Your task to perform on an android device: change timer sound Image 0: 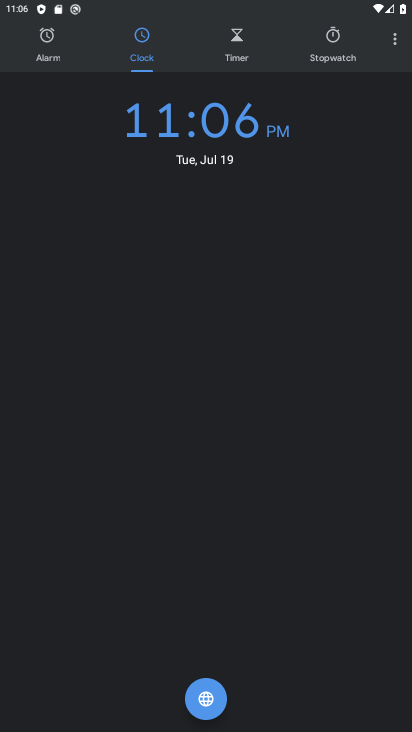
Step 0: press home button
Your task to perform on an android device: change timer sound Image 1: 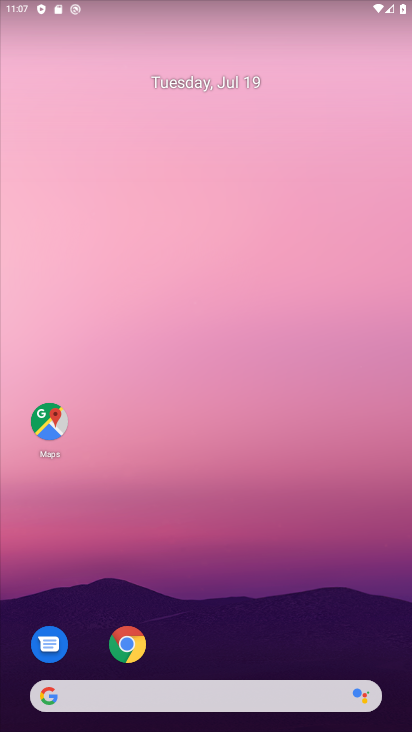
Step 1: drag from (19, 709) to (295, 74)
Your task to perform on an android device: change timer sound Image 2: 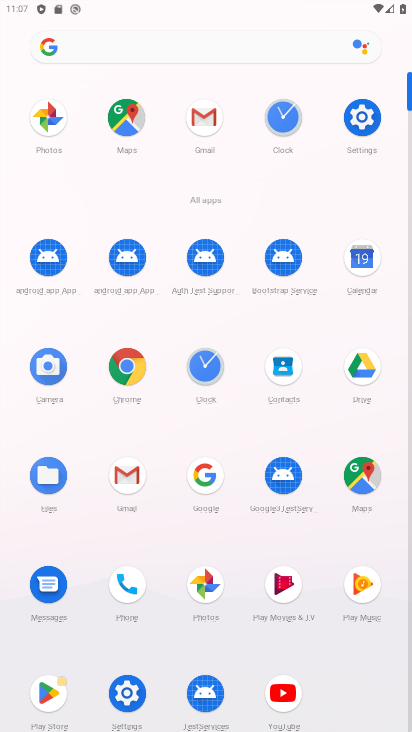
Step 2: click (190, 366)
Your task to perform on an android device: change timer sound Image 3: 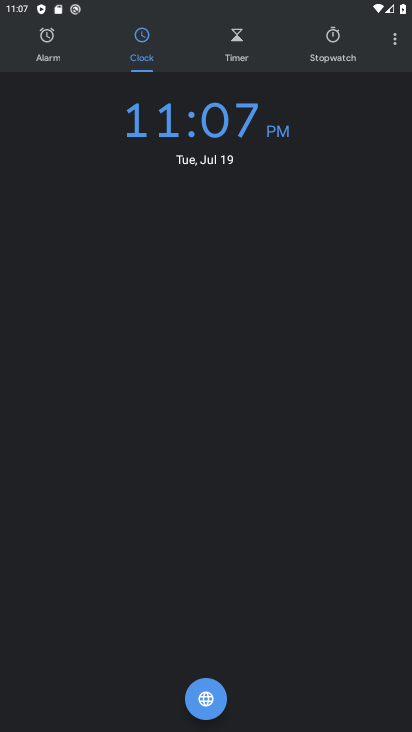
Step 3: click (229, 43)
Your task to perform on an android device: change timer sound Image 4: 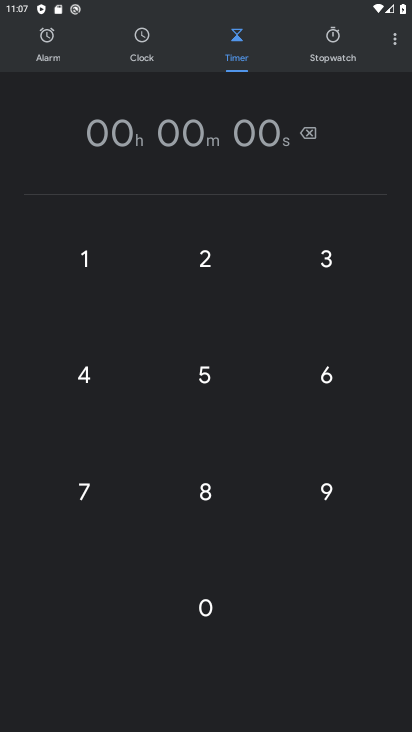
Step 4: click (402, 28)
Your task to perform on an android device: change timer sound Image 5: 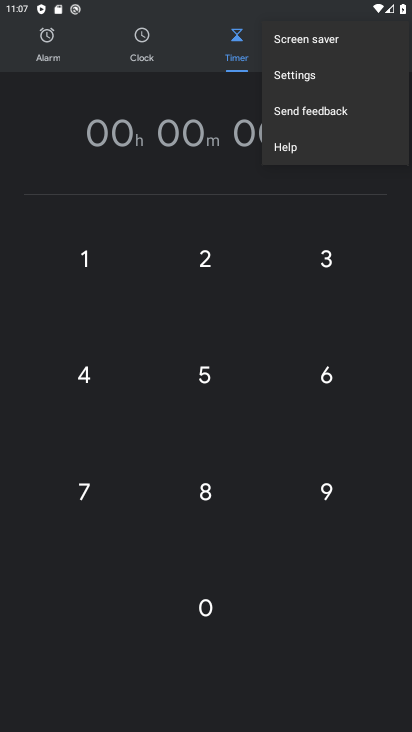
Step 5: click (291, 75)
Your task to perform on an android device: change timer sound Image 6: 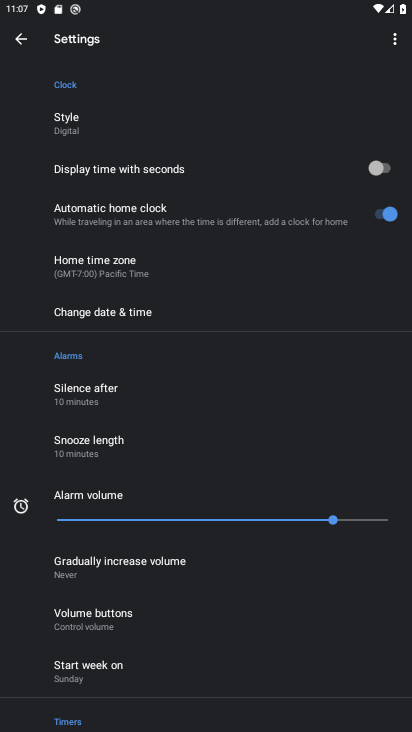
Step 6: drag from (171, 389) to (174, 151)
Your task to perform on an android device: change timer sound Image 7: 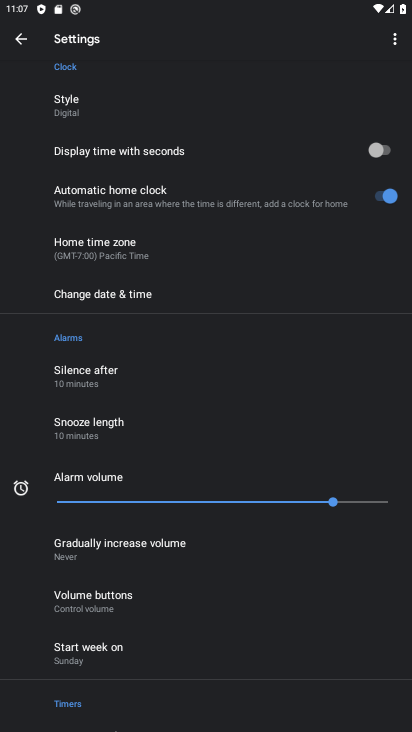
Step 7: drag from (195, 661) to (199, 483)
Your task to perform on an android device: change timer sound Image 8: 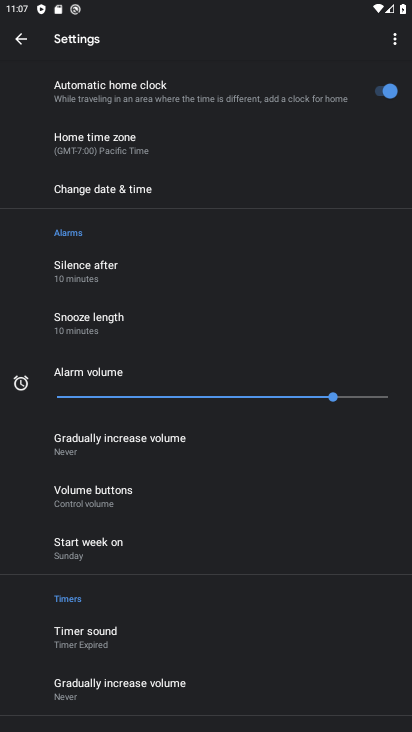
Step 8: click (77, 622)
Your task to perform on an android device: change timer sound Image 9: 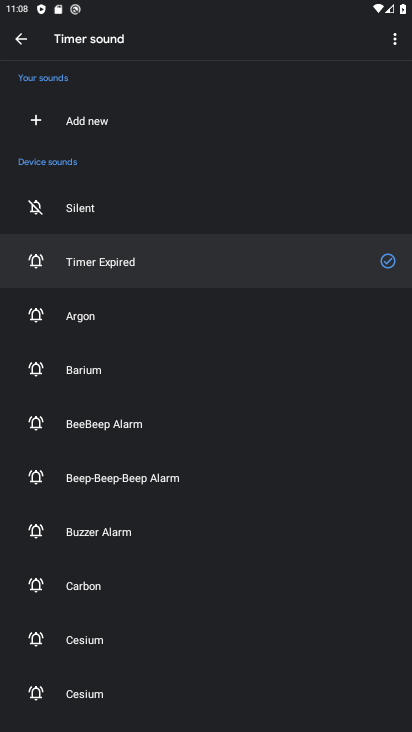
Step 9: click (101, 318)
Your task to perform on an android device: change timer sound Image 10: 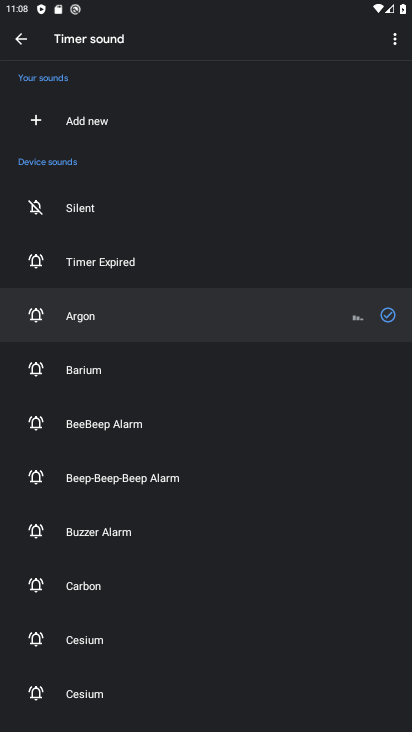
Step 10: task complete